Your task to perform on an android device: Search for a new phone on Amazon. Image 0: 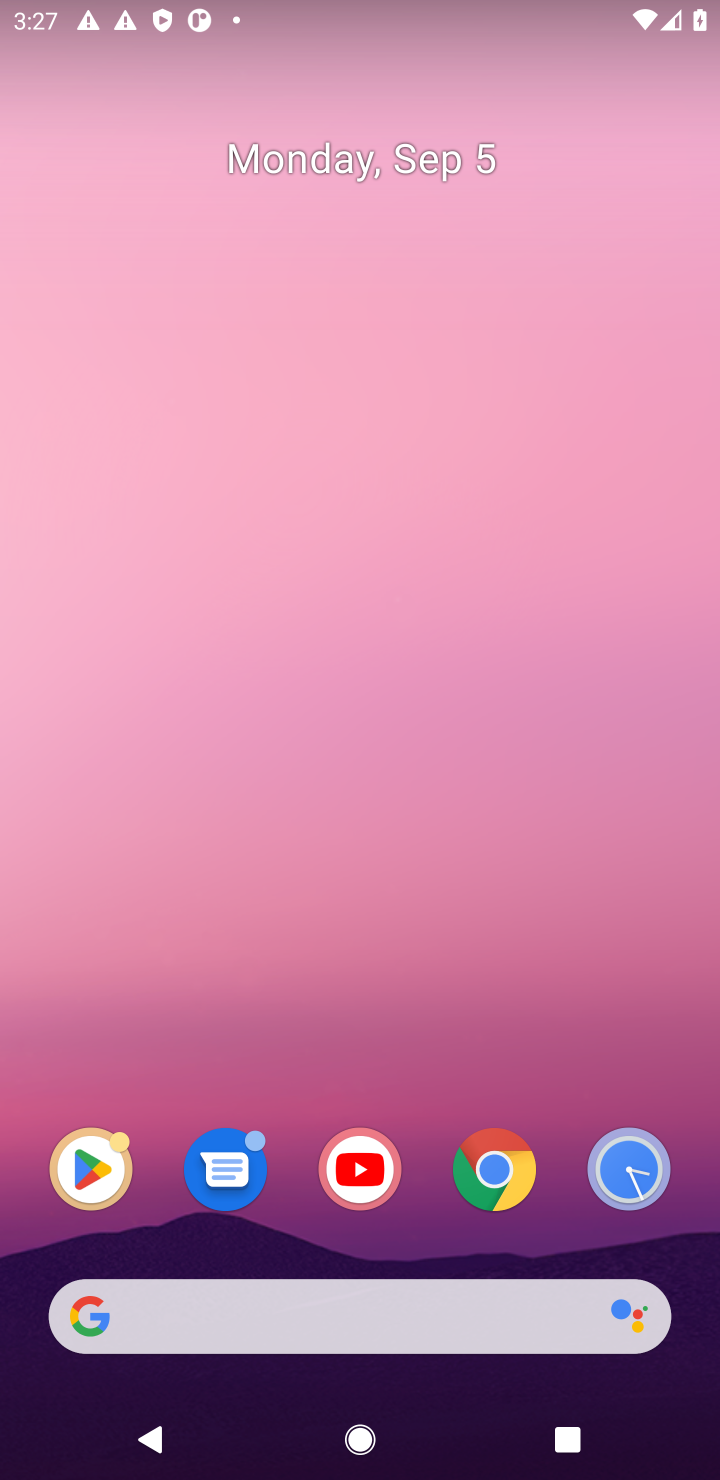
Step 0: click (476, 1185)
Your task to perform on an android device: Search for a new phone on Amazon. Image 1: 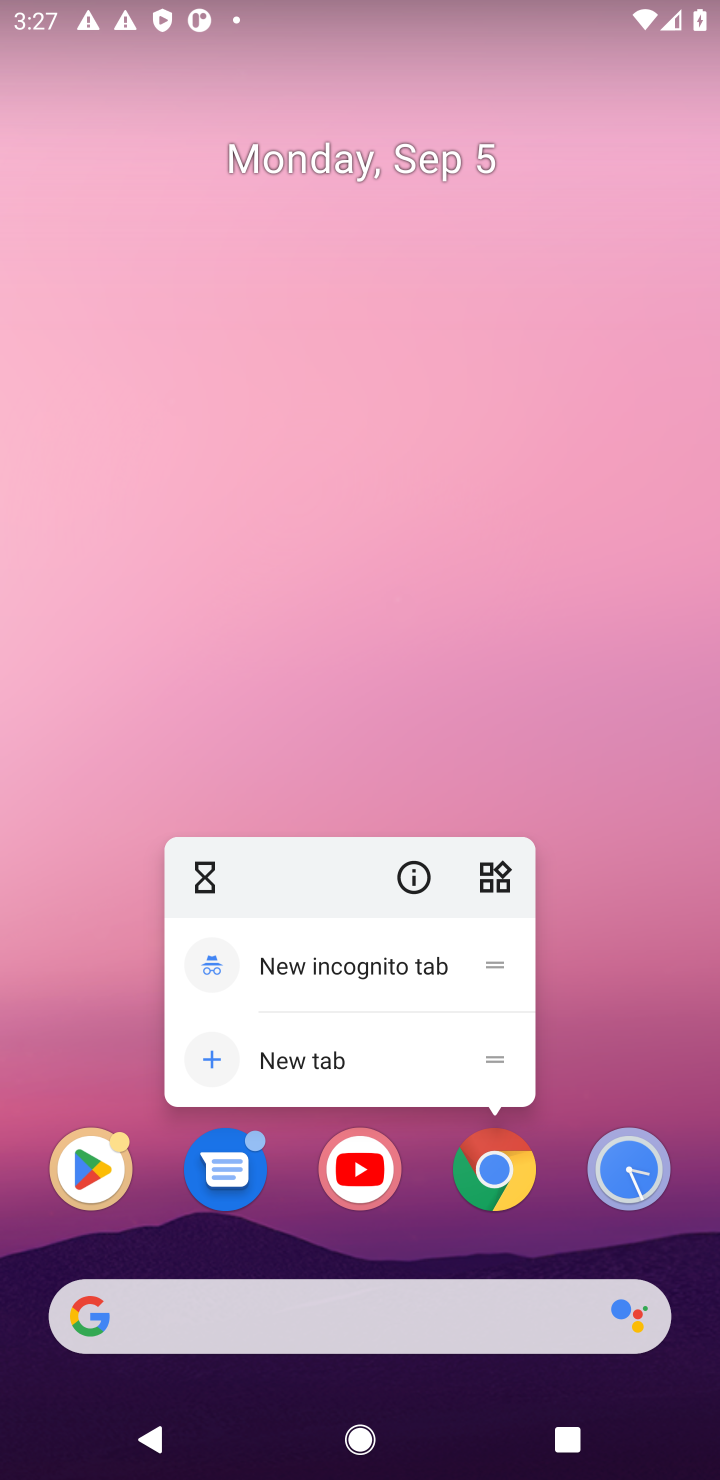
Step 1: click (509, 1173)
Your task to perform on an android device: Search for a new phone on Amazon. Image 2: 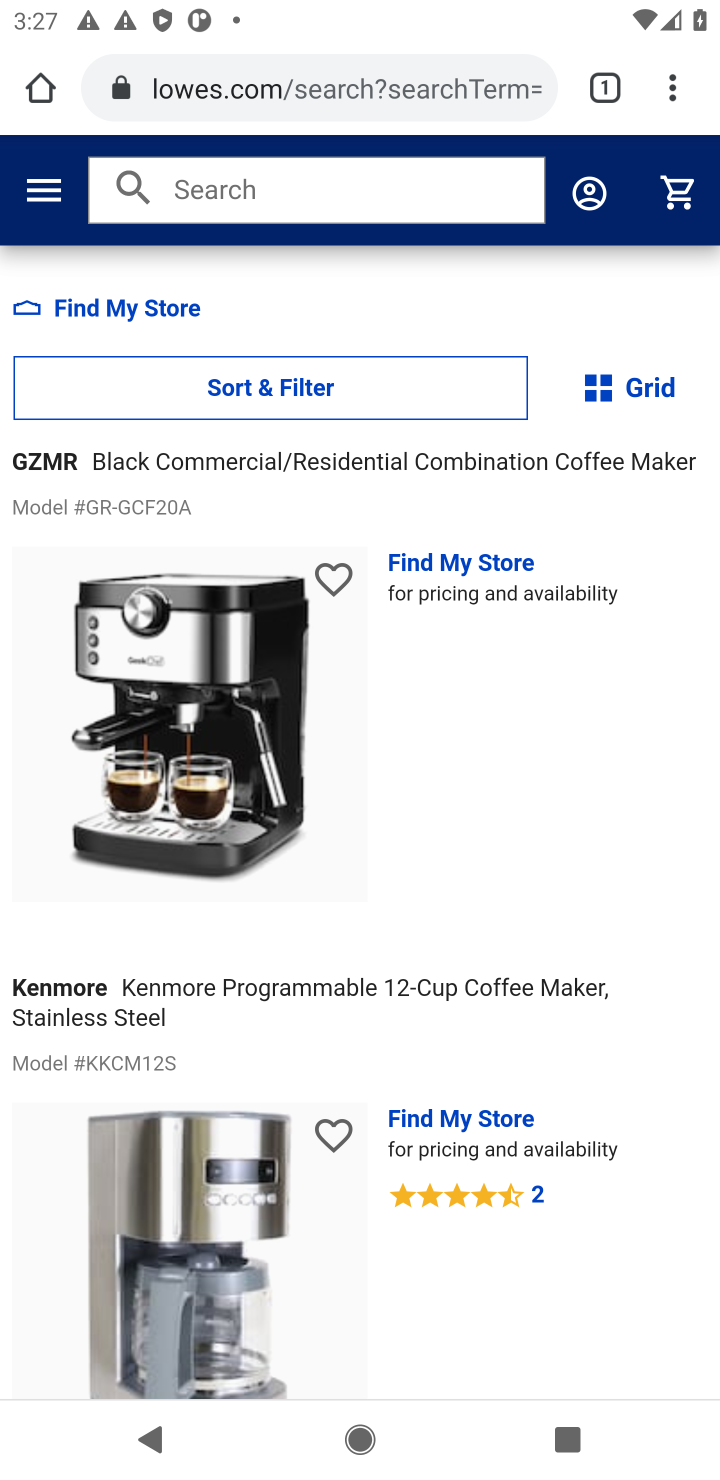
Step 2: click (271, 106)
Your task to perform on an android device: Search for a new phone on Amazon. Image 3: 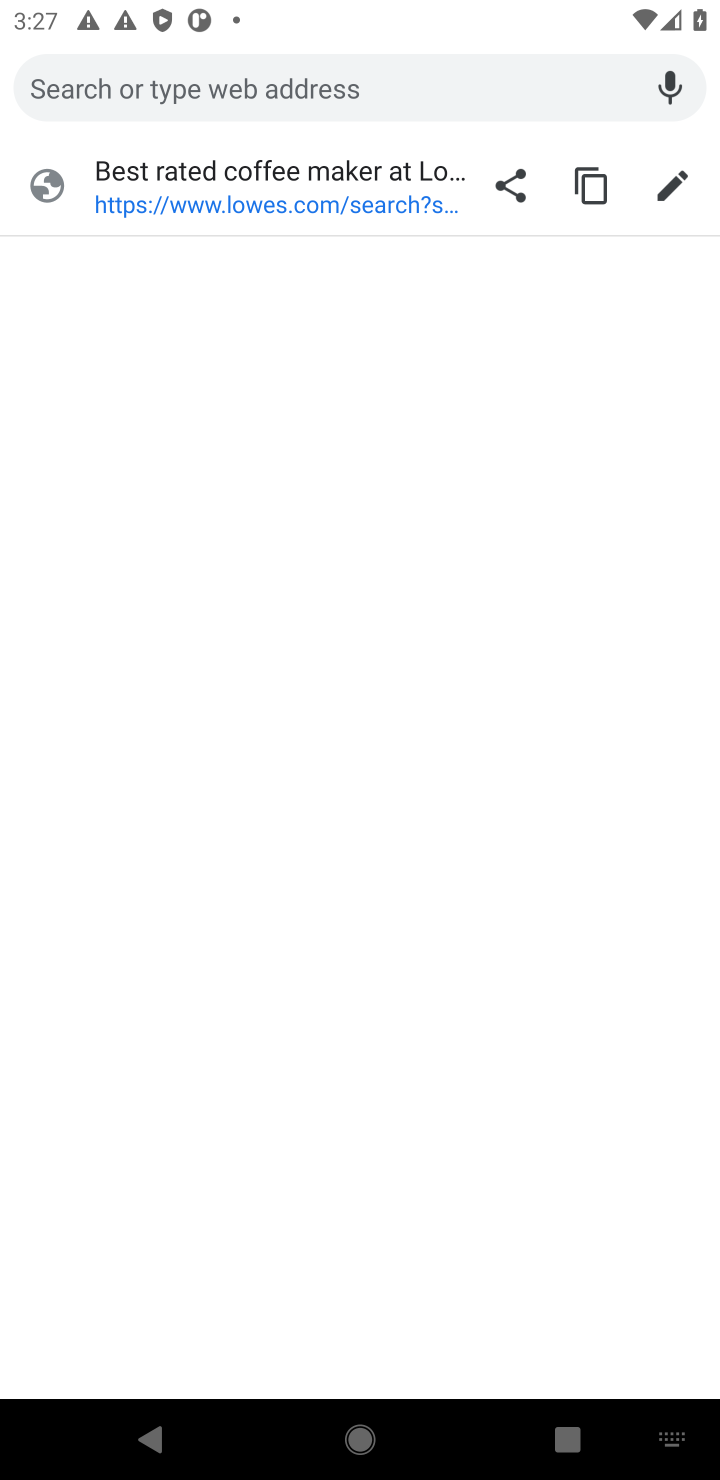
Step 3: type "amazon"
Your task to perform on an android device: Search for a new phone on Amazon. Image 4: 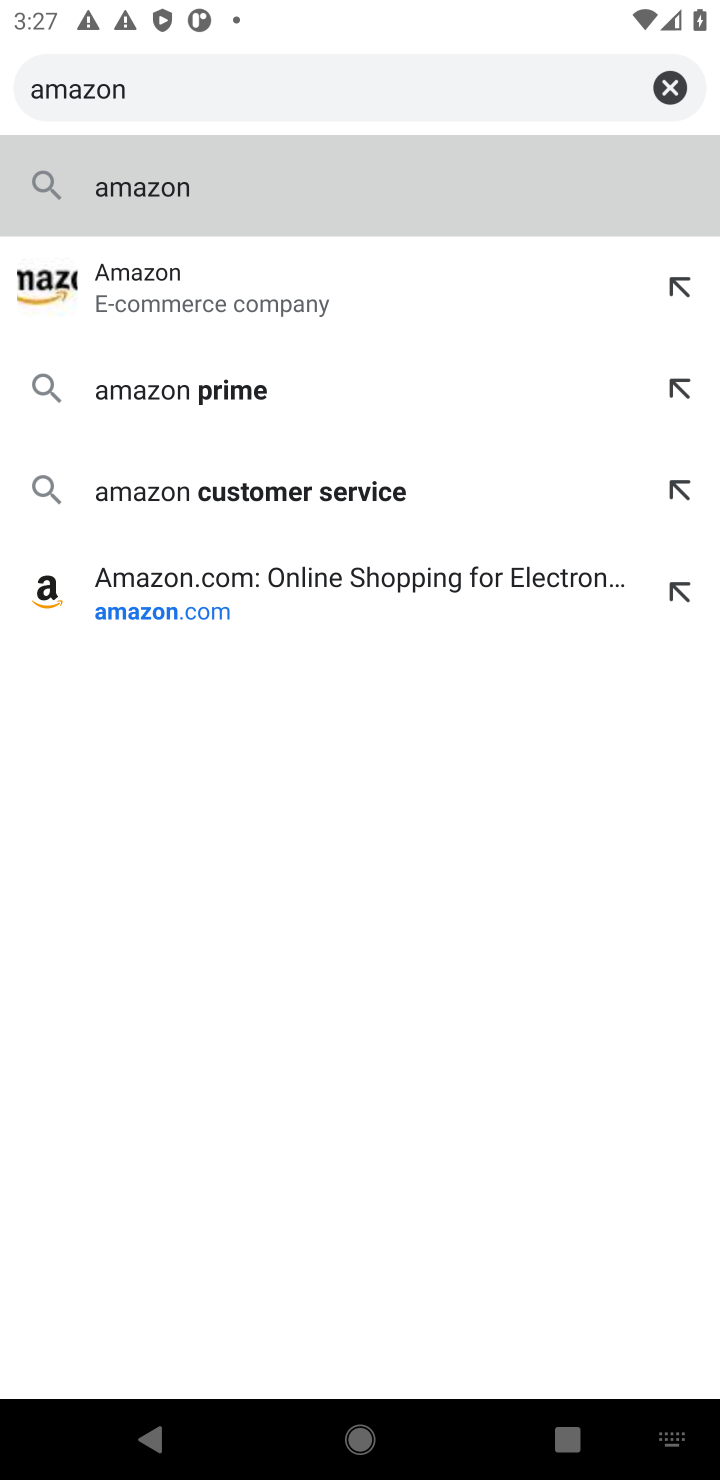
Step 4: click (162, 197)
Your task to perform on an android device: Search for a new phone on Amazon. Image 5: 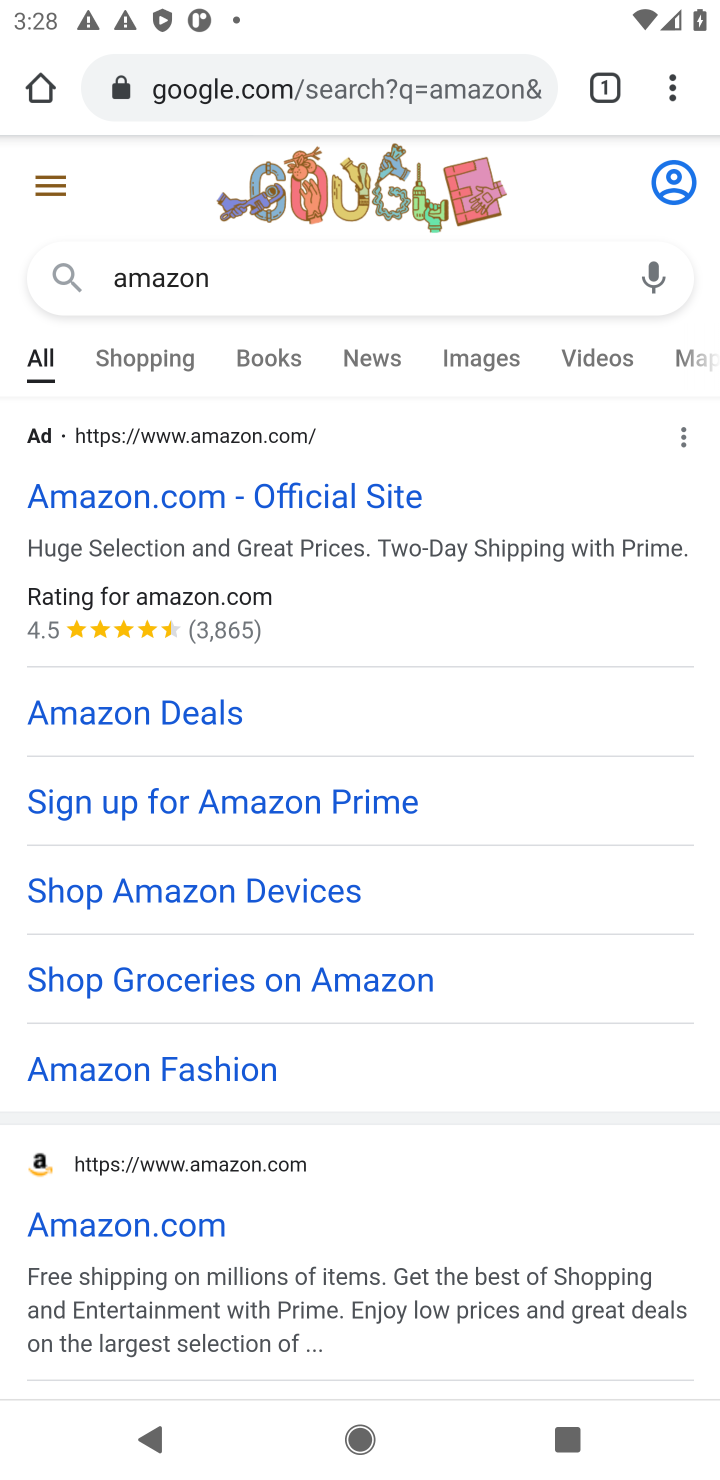
Step 5: click (163, 507)
Your task to perform on an android device: Search for a new phone on Amazon. Image 6: 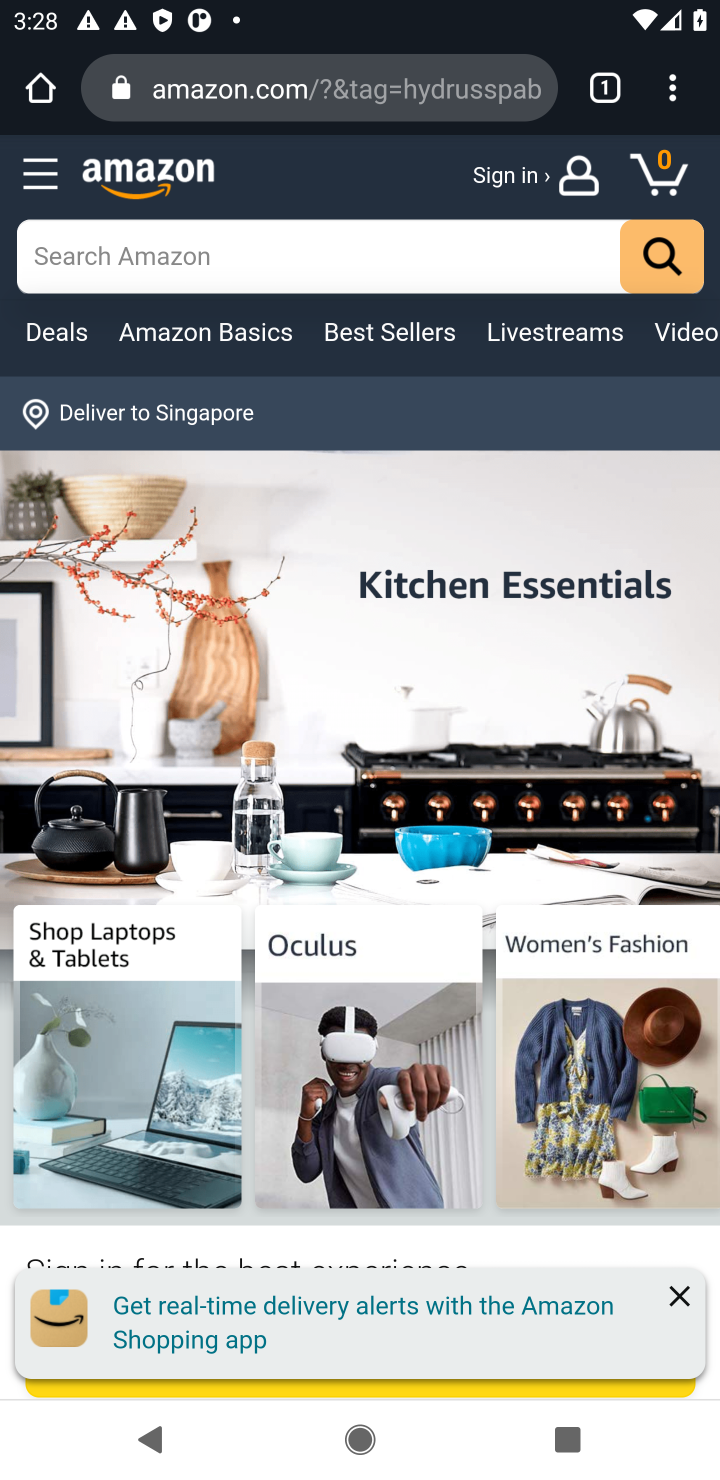
Step 6: click (245, 258)
Your task to perform on an android device: Search for a new phone on Amazon. Image 7: 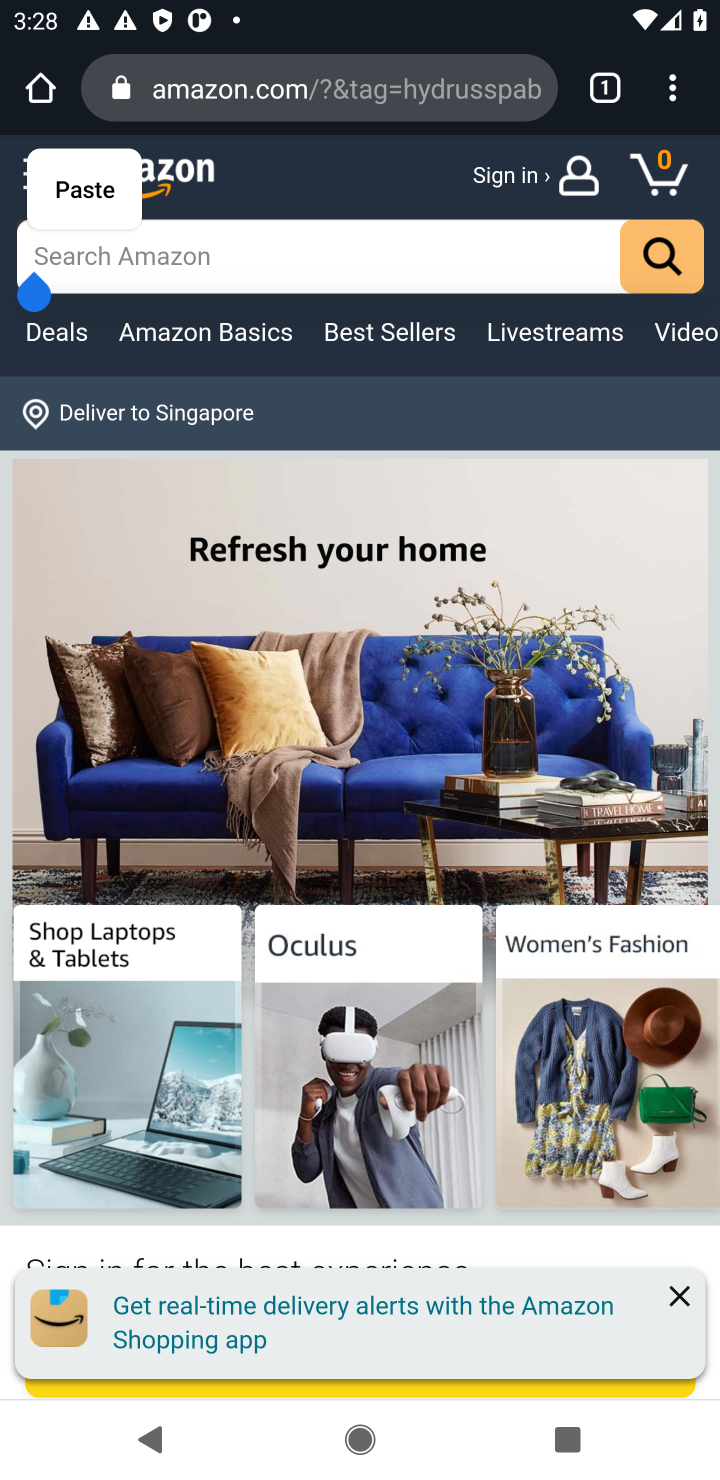
Step 7: type "new phone"
Your task to perform on an android device: Search for a new phone on Amazon. Image 8: 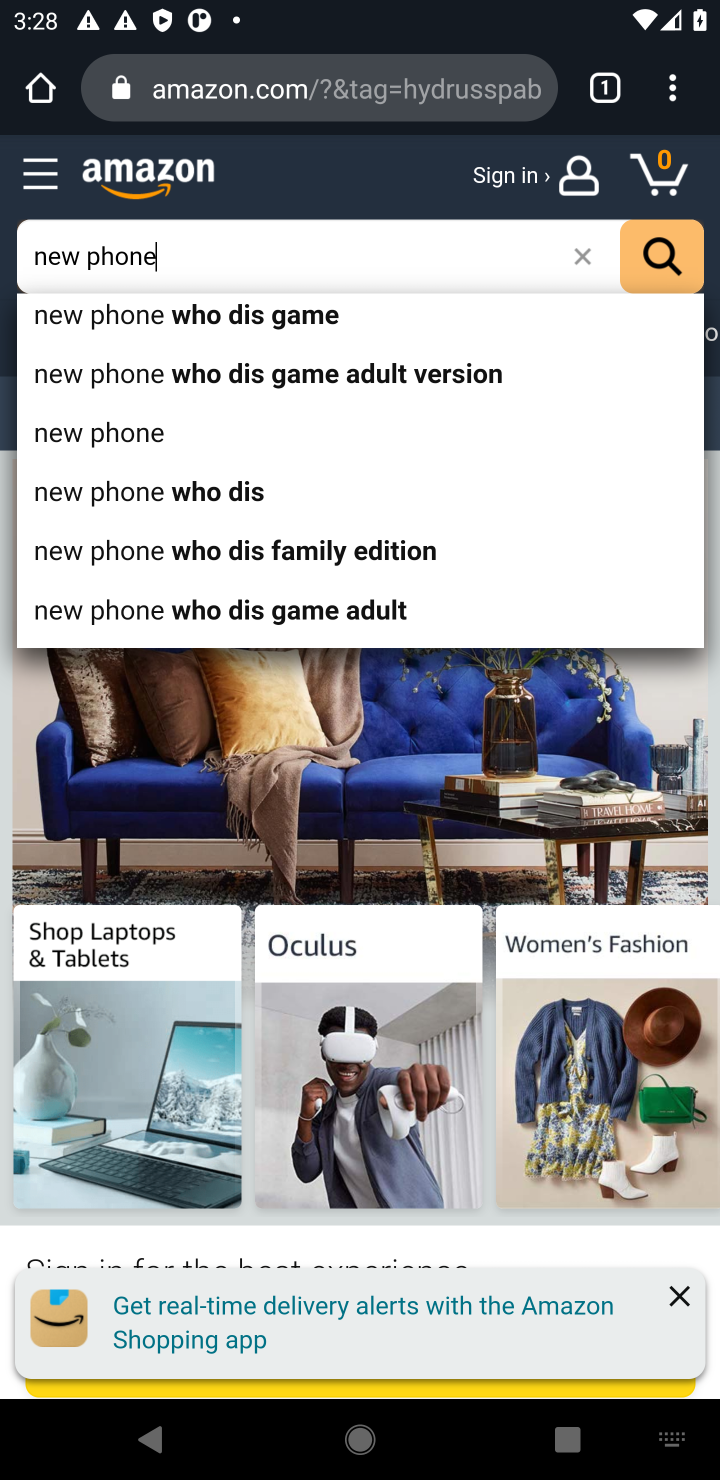
Step 8: click (130, 449)
Your task to perform on an android device: Search for a new phone on Amazon. Image 9: 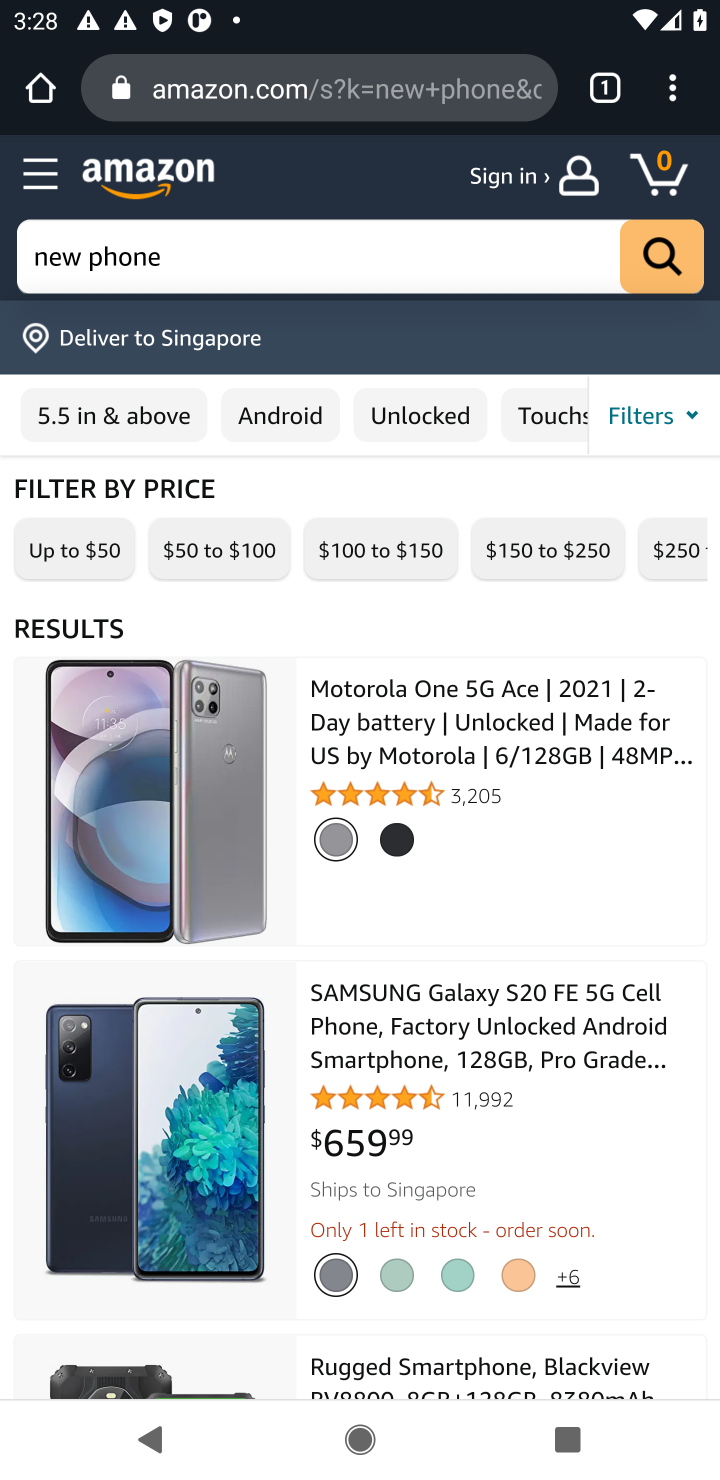
Step 9: task complete